Your task to perform on an android device: Is it going to rain tomorrow? Image 0: 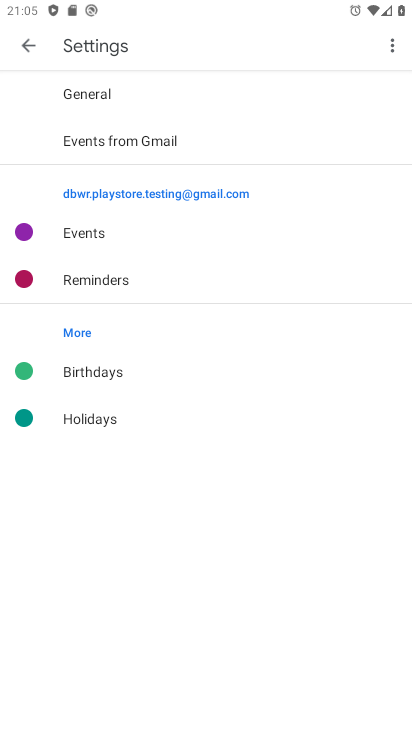
Step 0: press home button
Your task to perform on an android device: Is it going to rain tomorrow? Image 1: 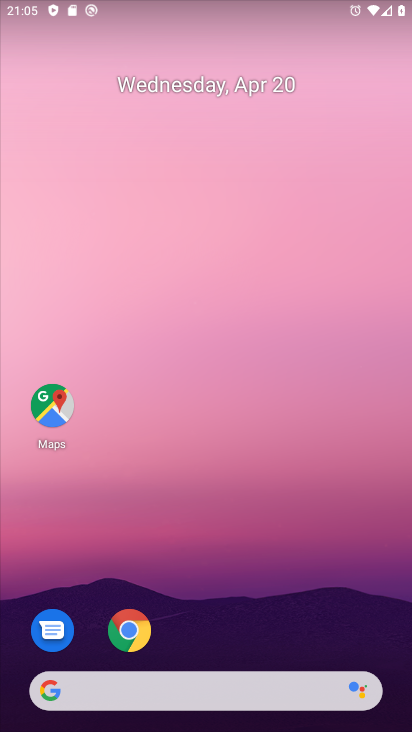
Step 1: click (212, 679)
Your task to perform on an android device: Is it going to rain tomorrow? Image 2: 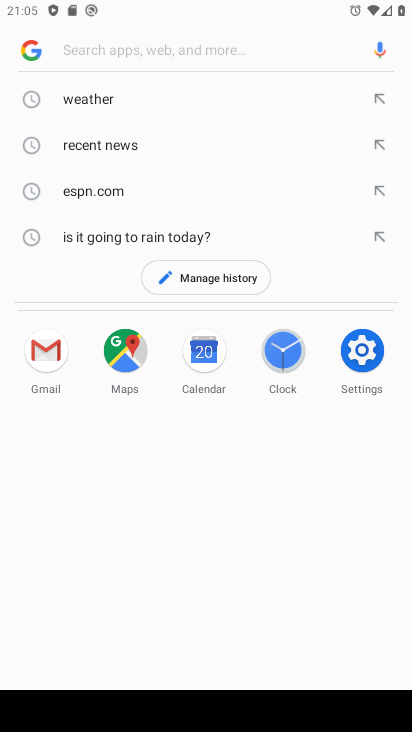
Step 2: click (102, 98)
Your task to perform on an android device: Is it going to rain tomorrow? Image 3: 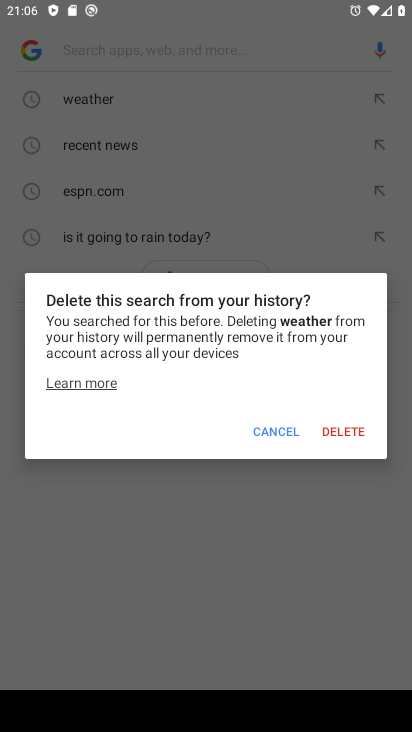
Step 3: click (272, 429)
Your task to perform on an android device: Is it going to rain tomorrow? Image 4: 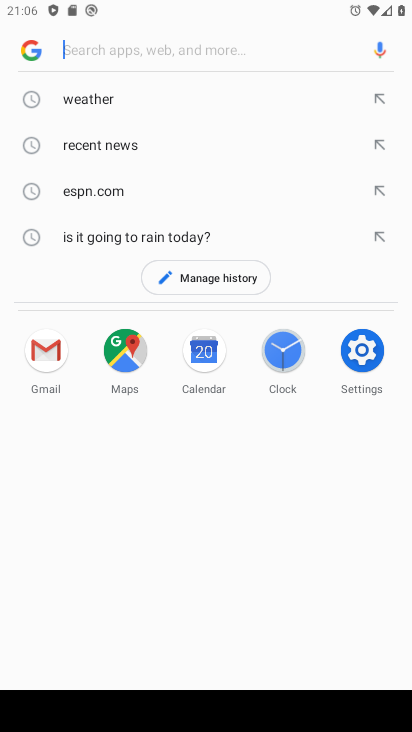
Step 4: click (121, 99)
Your task to perform on an android device: Is it going to rain tomorrow? Image 5: 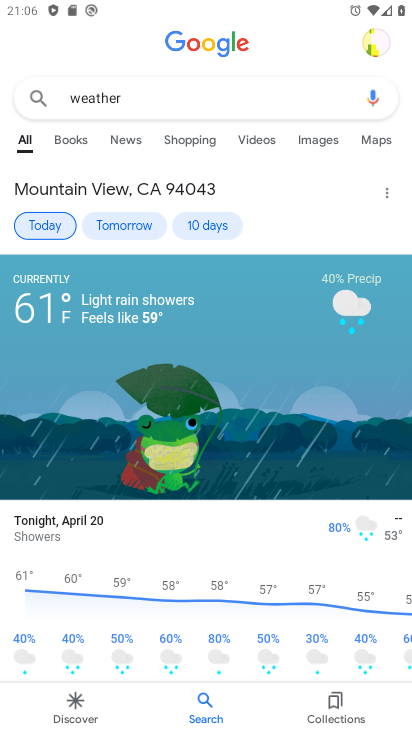
Step 5: task complete